Your task to perform on an android device: View the shopping cart on ebay.com. Add "asus zenbook" to the cart on ebay.com Image 0: 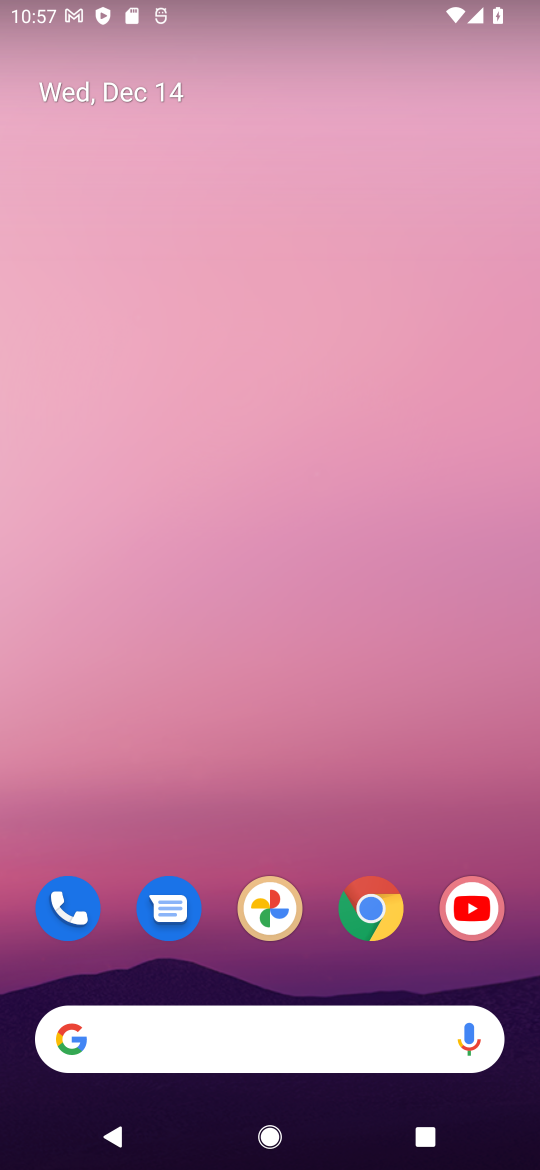
Step 0: click (384, 915)
Your task to perform on an android device: View the shopping cart on ebay.com. Add "asus zenbook" to the cart on ebay.com Image 1: 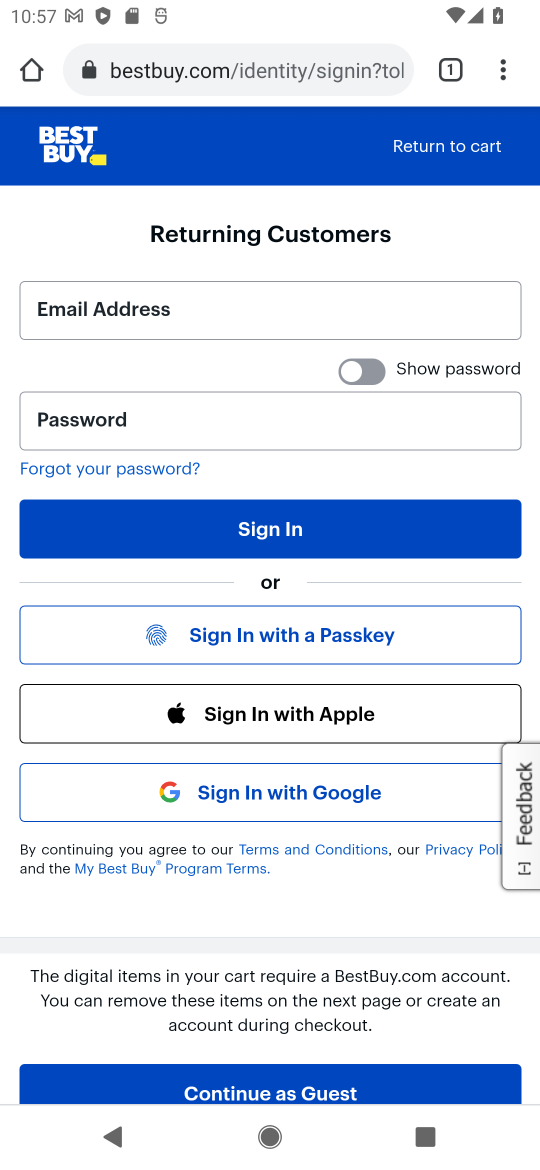
Step 1: click (251, 79)
Your task to perform on an android device: View the shopping cart on ebay.com. Add "asus zenbook" to the cart on ebay.com Image 2: 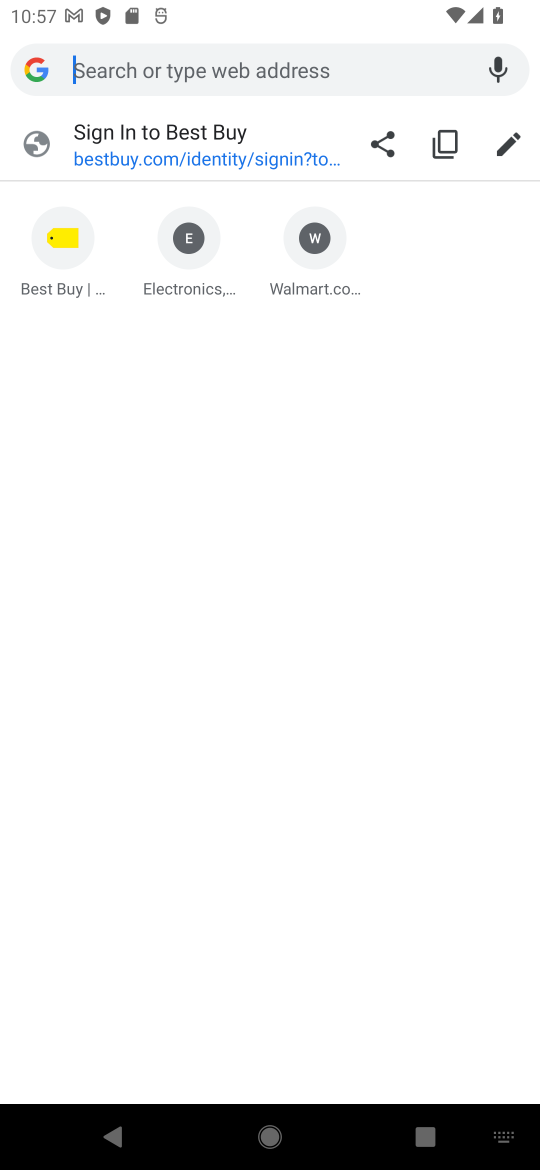
Step 2: type "ebay.com"
Your task to perform on an android device: View the shopping cart on ebay.com. Add "asus zenbook" to the cart on ebay.com Image 3: 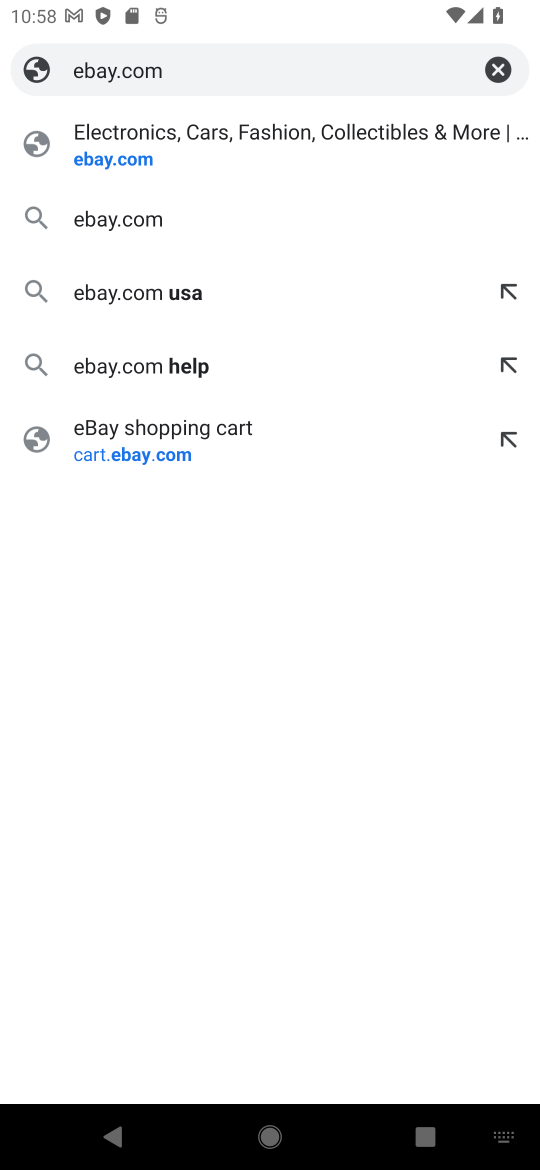
Step 3: click (113, 161)
Your task to perform on an android device: View the shopping cart on ebay.com. Add "asus zenbook" to the cart on ebay.com Image 4: 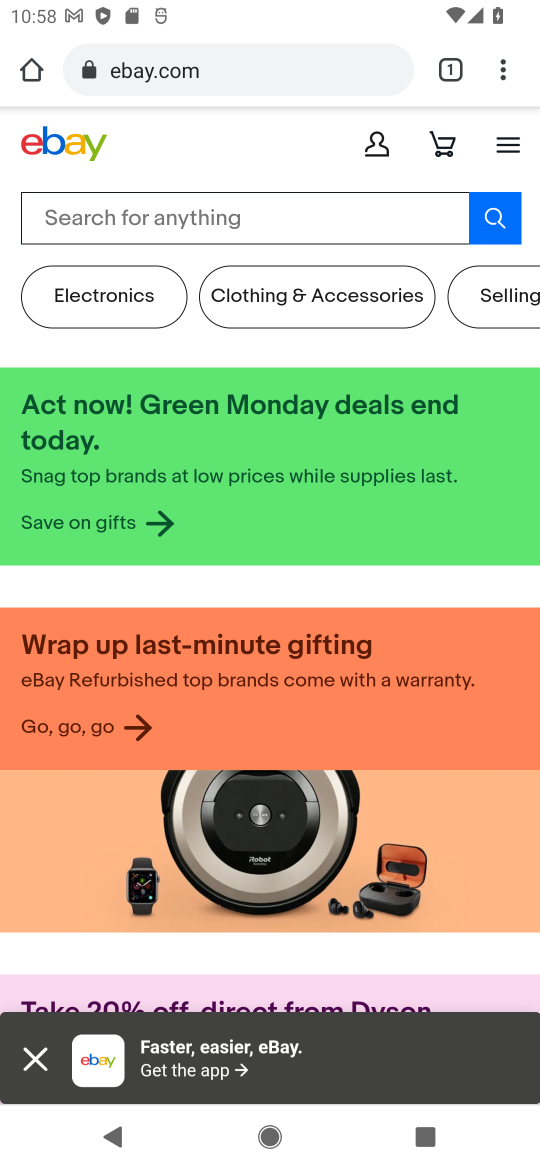
Step 4: click (447, 149)
Your task to perform on an android device: View the shopping cart on ebay.com. Add "asus zenbook" to the cart on ebay.com Image 5: 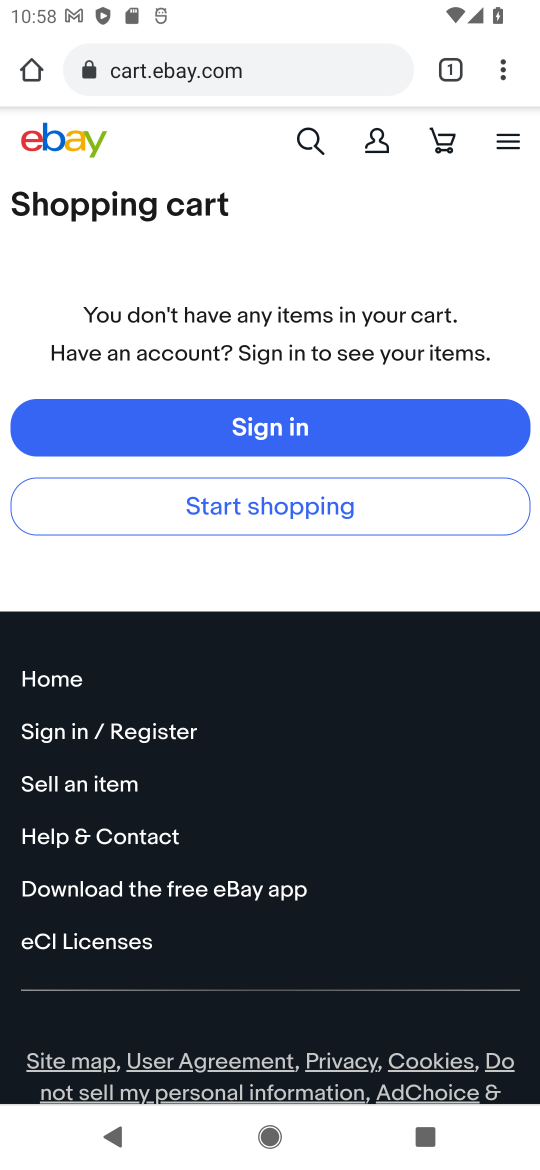
Step 5: click (316, 145)
Your task to perform on an android device: View the shopping cart on ebay.com. Add "asus zenbook" to the cart on ebay.com Image 6: 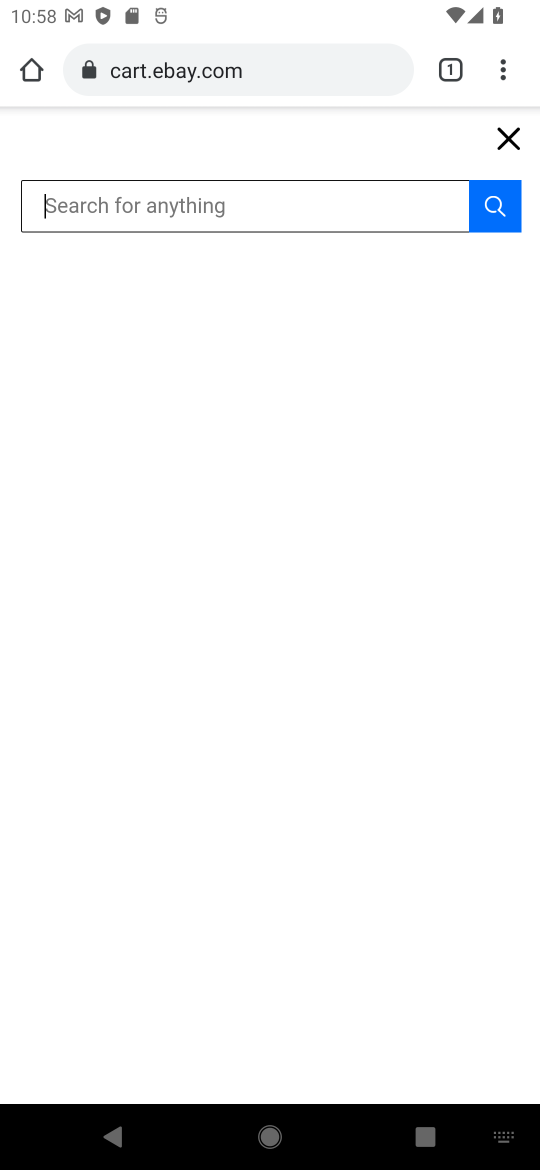
Step 6: type "asus zenbook"
Your task to perform on an android device: View the shopping cart on ebay.com. Add "asus zenbook" to the cart on ebay.com Image 7: 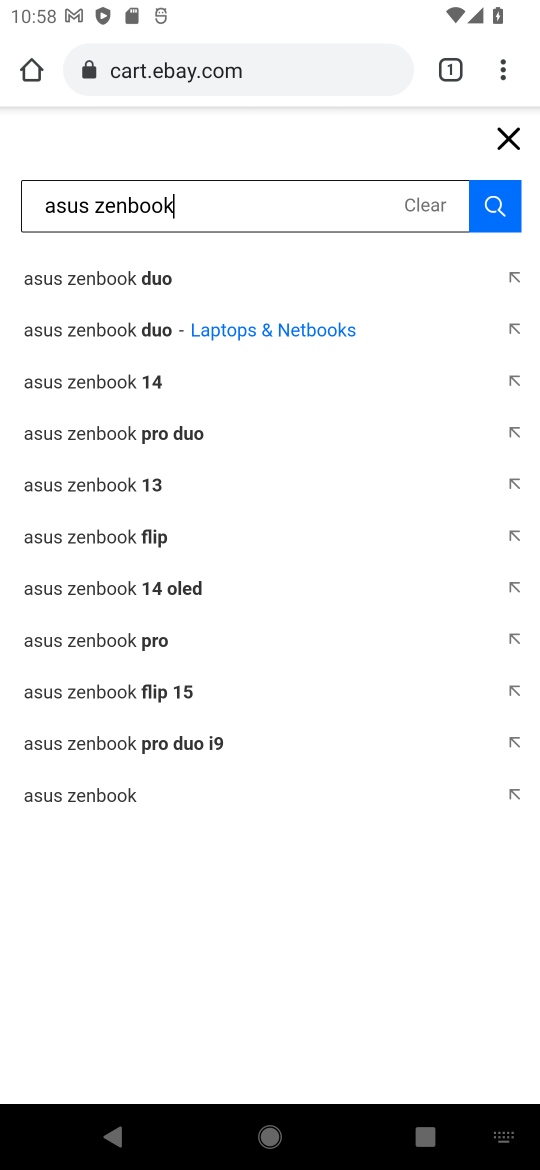
Step 7: click (92, 805)
Your task to perform on an android device: View the shopping cart on ebay.com. Add "asus zenbook" to the cart on ebay.com Image 8: 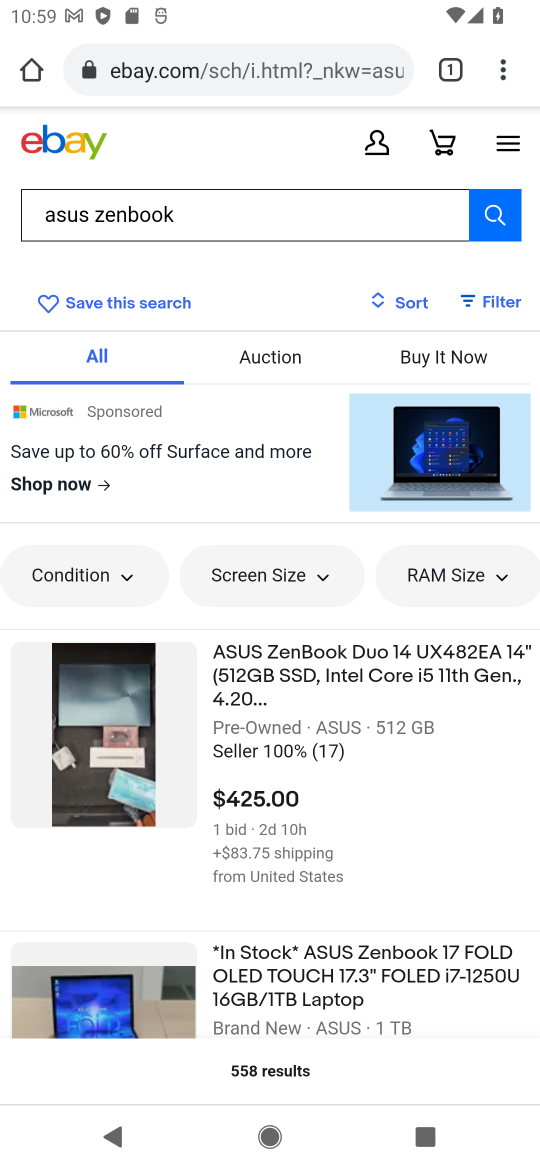
Step 8: drag from (303, 838) to (274, 412)
Your task to perform on an android device: View the shopping cart on ebay.com. Add "asus zenbook" to the cart on ebay.com Image 9: 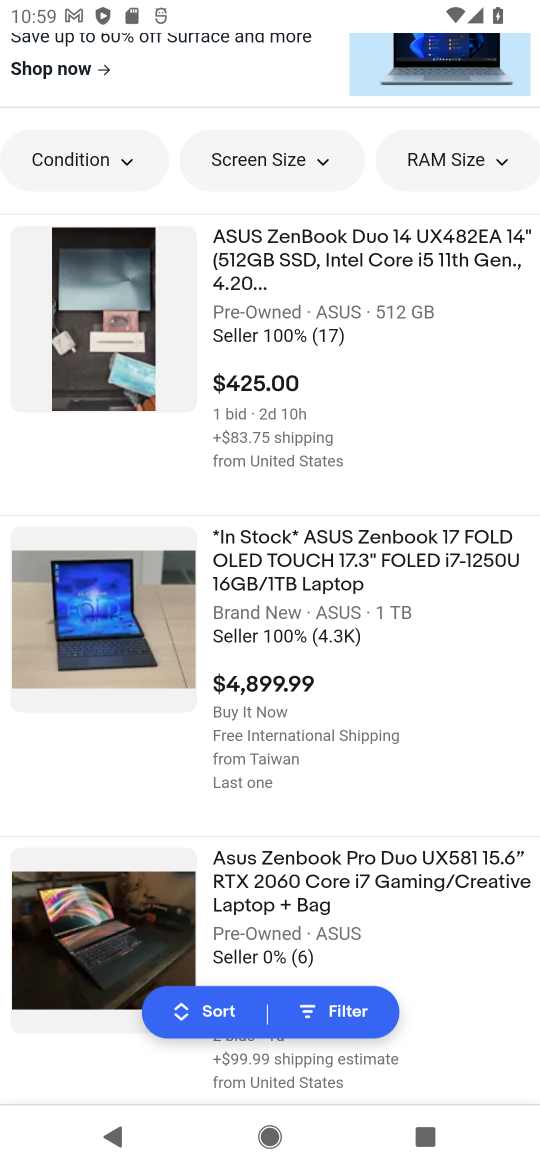
Step 9: click (276, 591)
Your task to perform on an android device: View the shopping cart on ebay.com. Add "asus zenbook" to the cart on ebay.com Image 10: 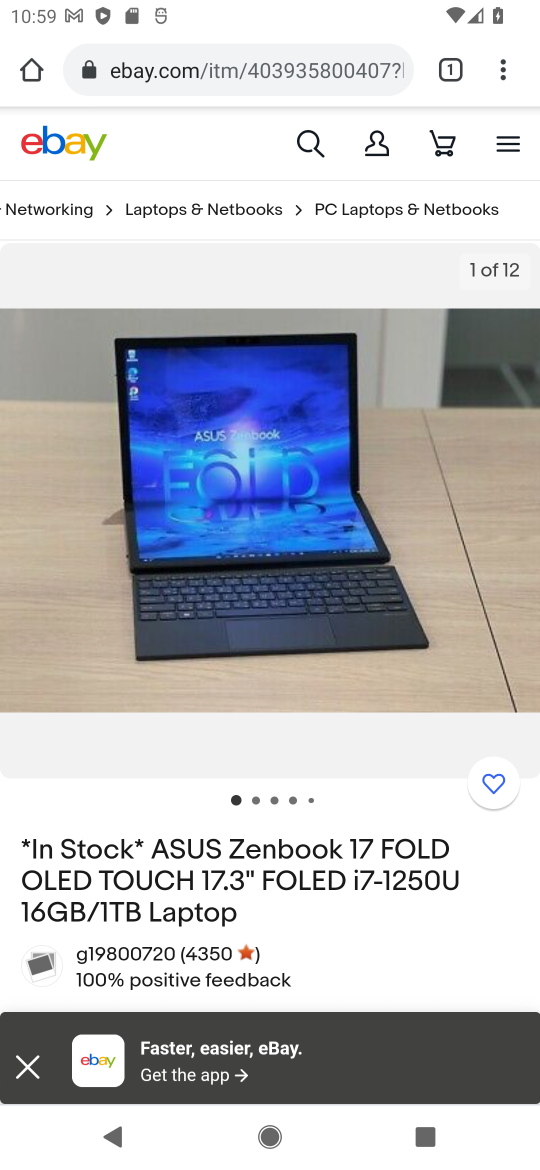
Step 10: drag from (265, 740) to (245, 452)
Your task to perform on an android device: View the shopping cart on ebay.com. Add "asus zenbook" to the cart on ebay.com Image 11: 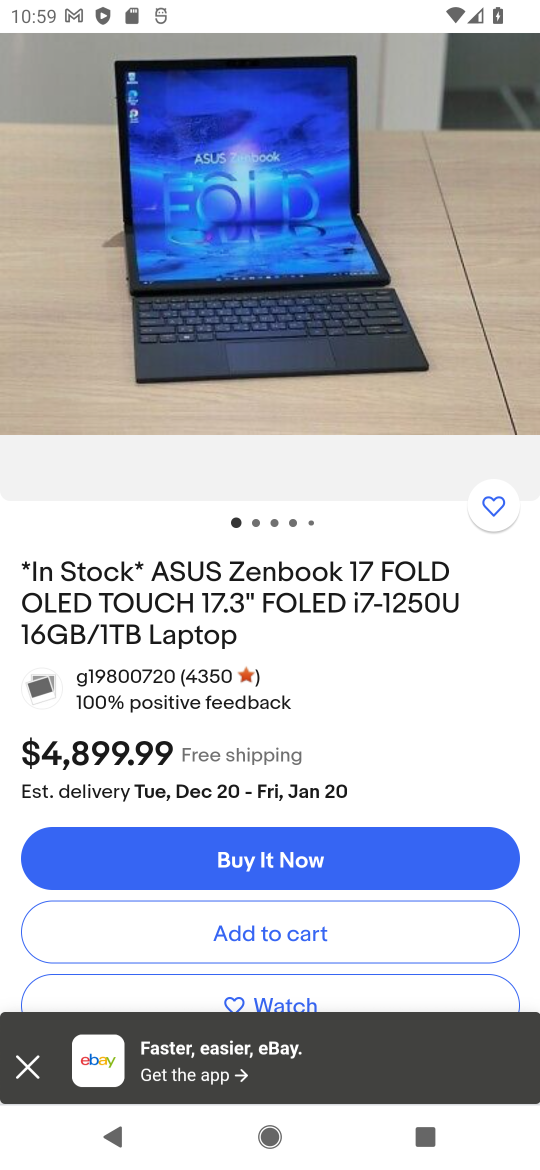
Step 11: drag from (255, 664) to (259, 464)
Your task to perform on an android device: View the shopping cart on ebay.com. Add "asus zenbook" to the cart on ebay.com Image 12: 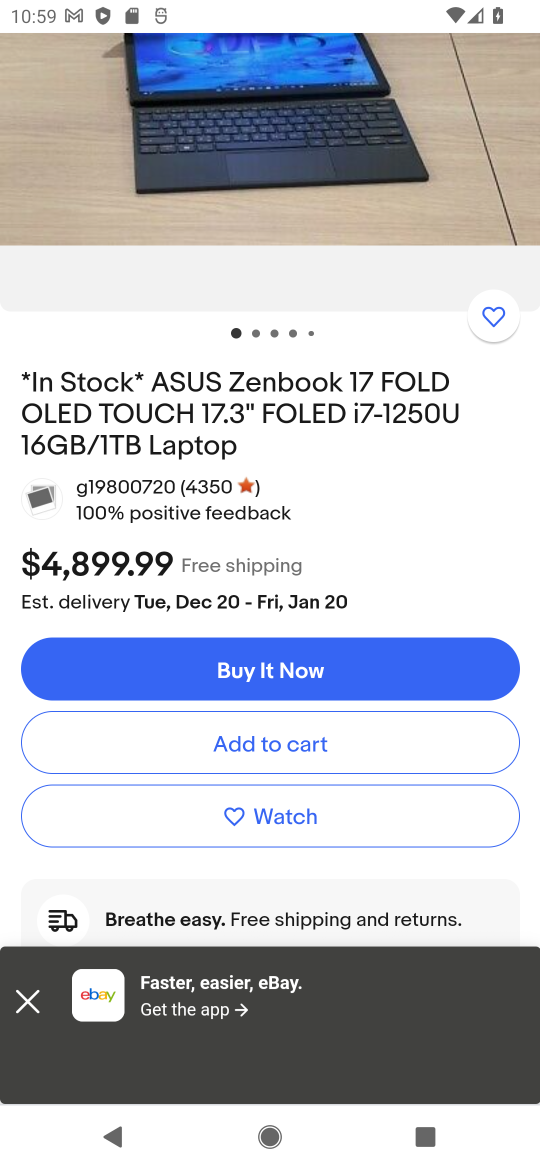
Step 12: click (238, 748)
Your task to perform on an android device: View the shopping cart on ebay.com. Add "asus zenbook" to the cart on ebay.com Image 13: 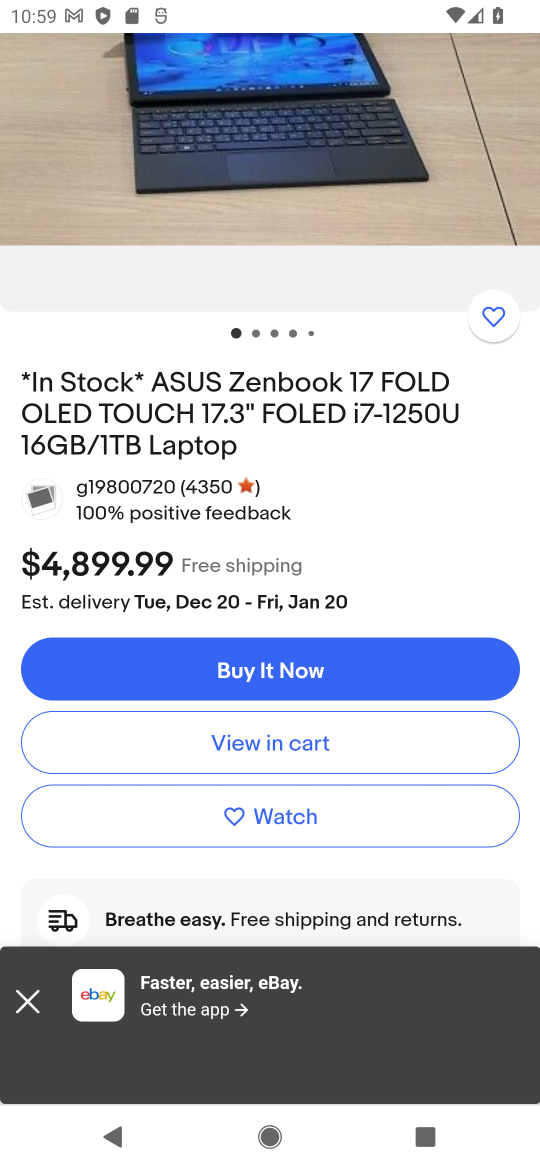
Step 13: task complete